Your task to perform on an android device: open app "Contacts" (install if not already installed) Image 0: 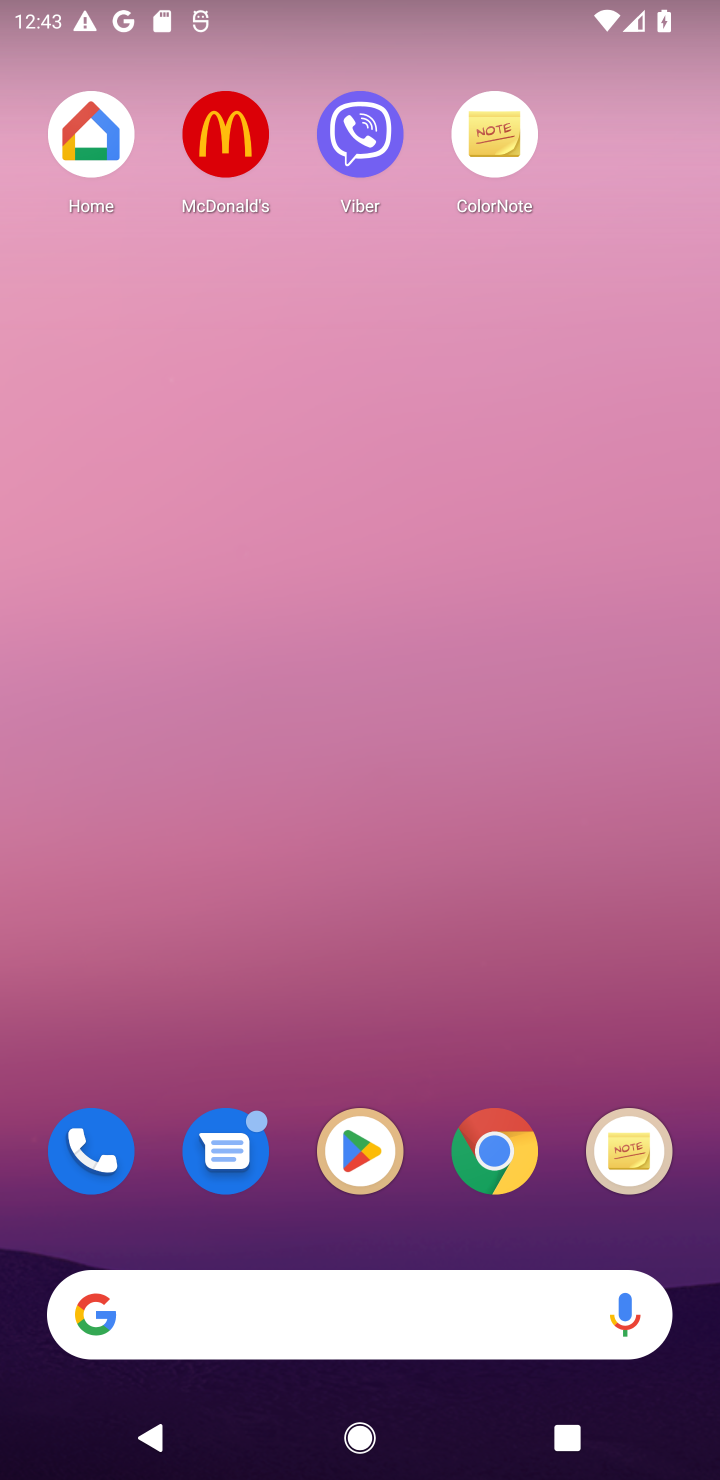
Step 0: click (341, 1146)
Your task to perform on an android device: open app "Contacts" (install if not already installed) Image 1: 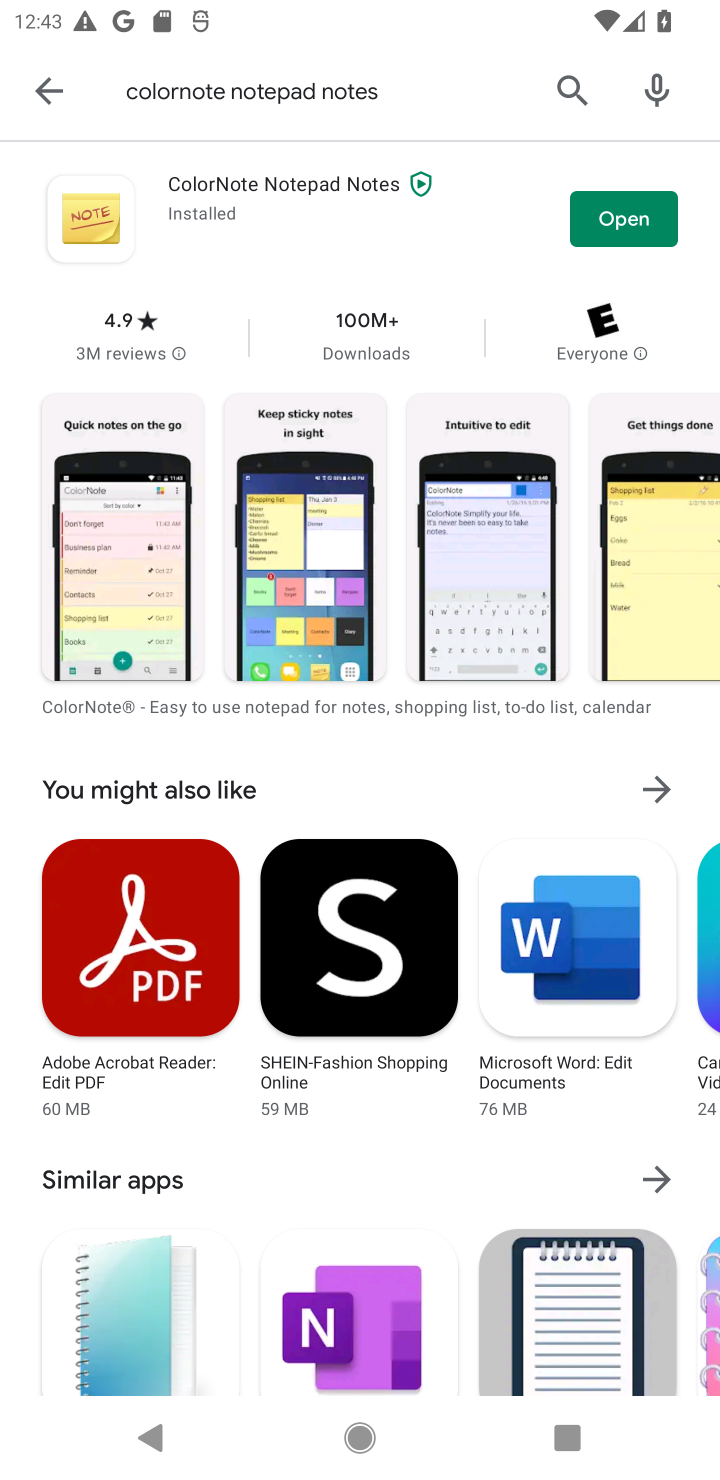
Step 1: click (573, 86)
Your task to perform on an android device: open app "Contacts" (install if not already installed) Image 2: 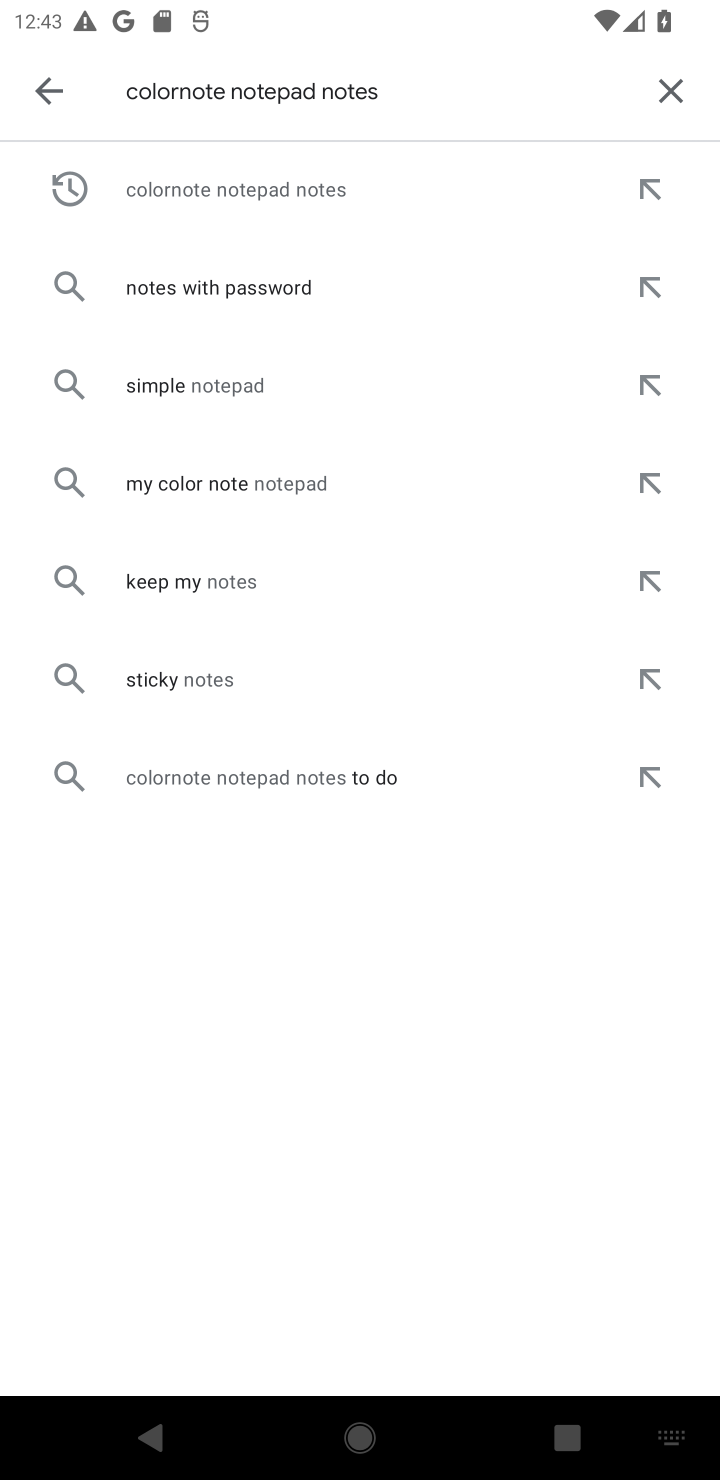
Step 2: click (666, 98)
Your task to perform on an android device: open app "Contacts" (install if not already installed) Image 3: 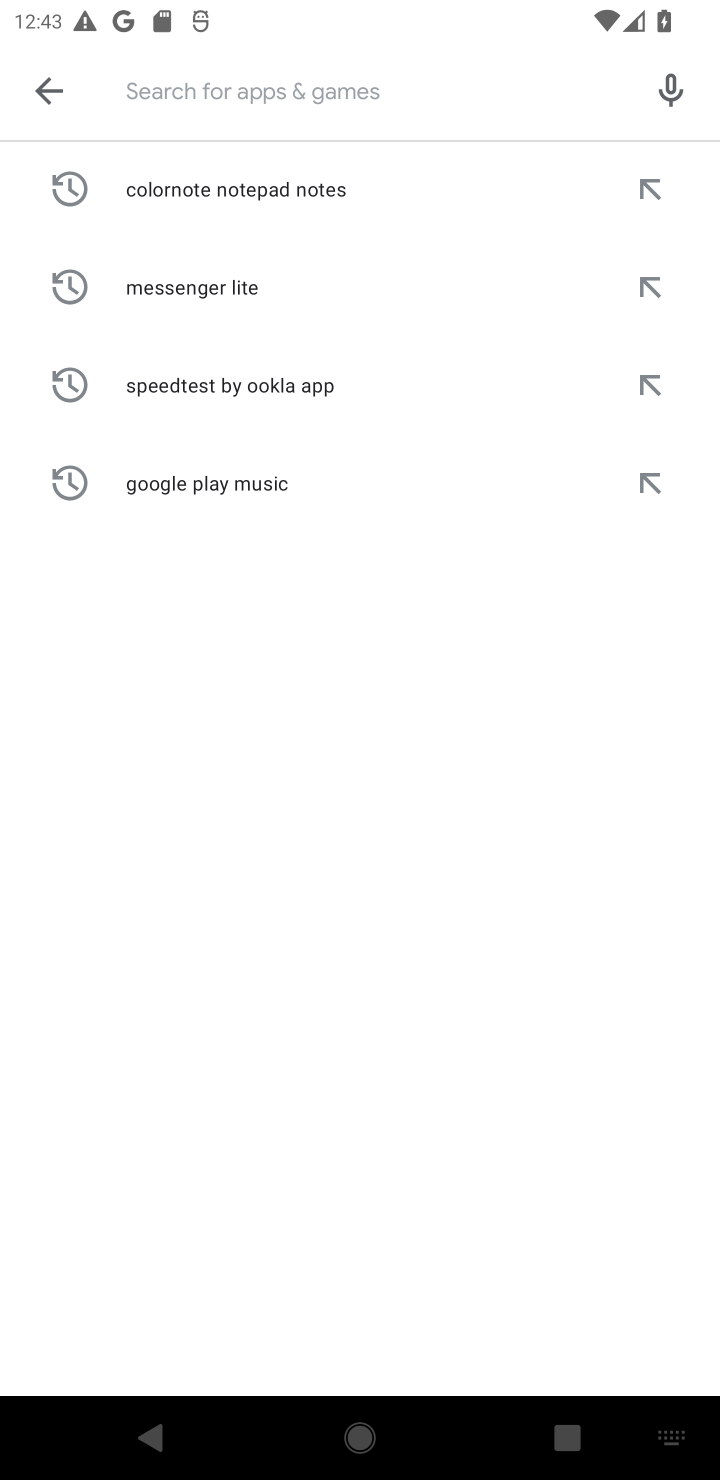
Step 3: type "Contacts"
Your task to perform on an android device: open app "Contacts" (install if not already installed) Image 4: 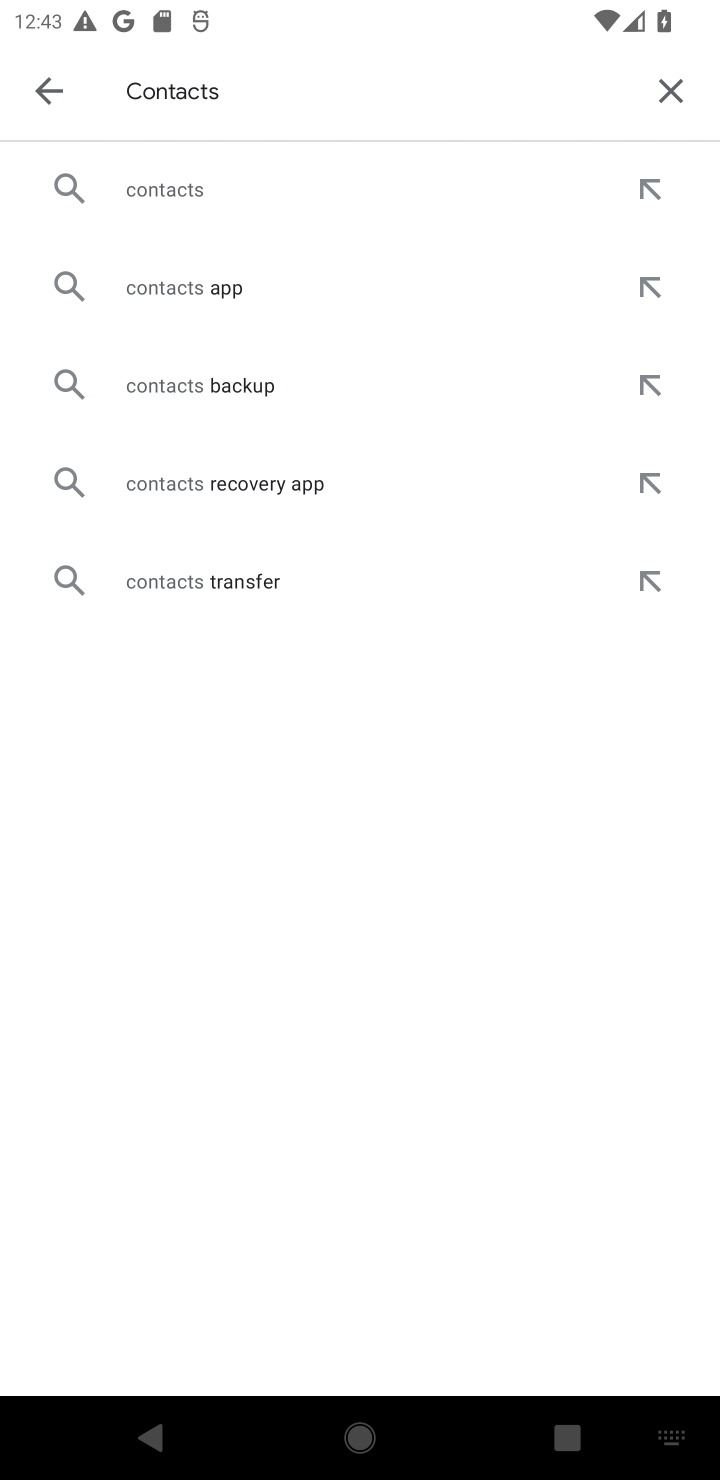
Step 4: click (264, 172)
Your task to perform on an android device: open app "Contacts" (install if not already installed) Image 5: 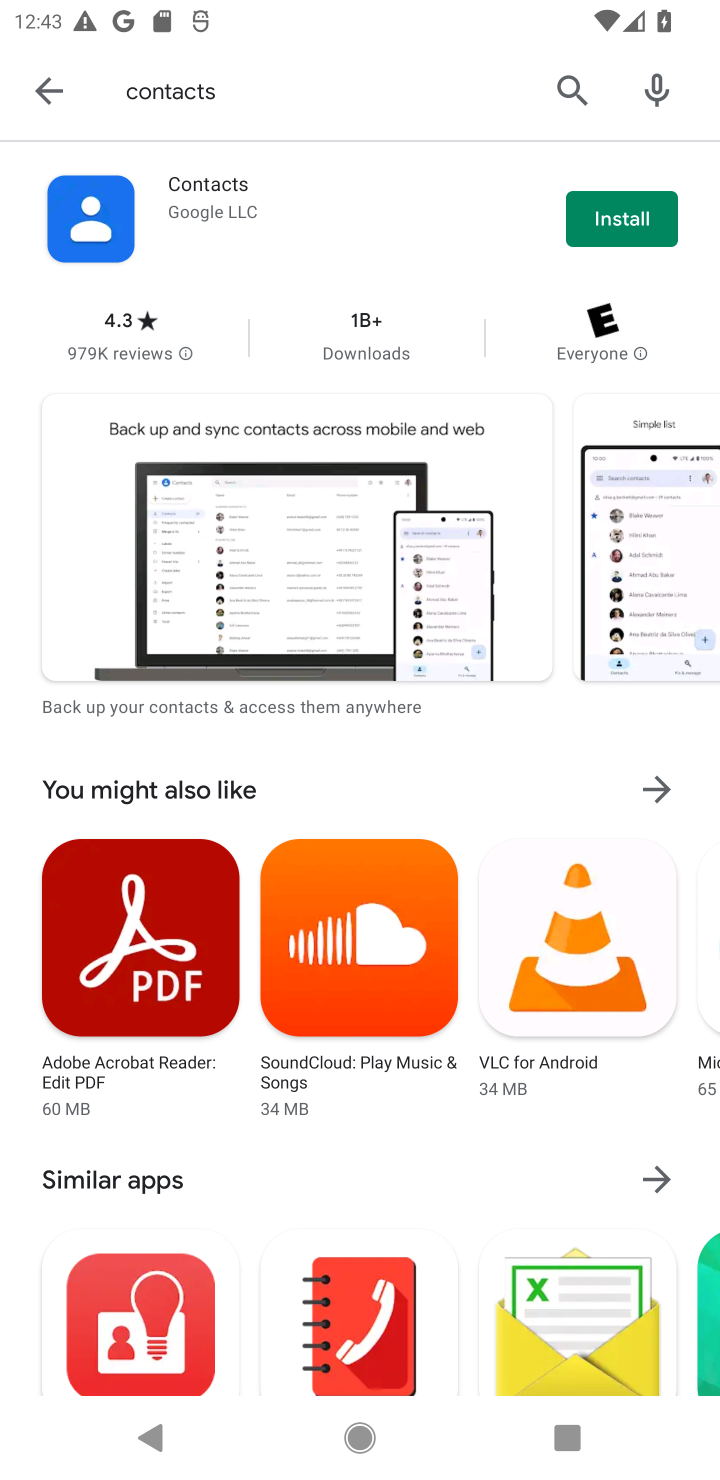
Step 5: click (620, 231)
Your task to perform on an android device: open app "Contacts" (install if not already installed) Image 6: 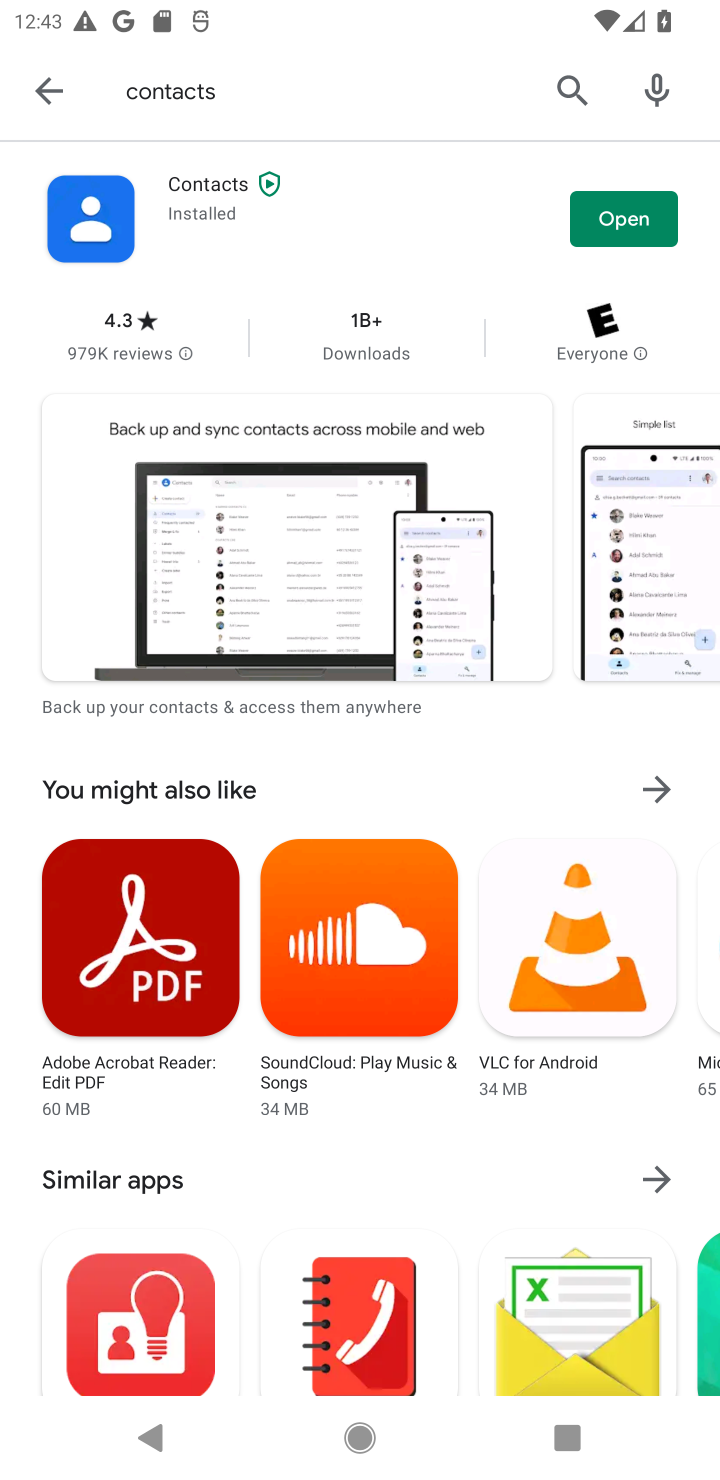
Step 6: click (609, 227)
Your task to perform on an android device: open app "Contacts" (install if not already installed) Image 7: 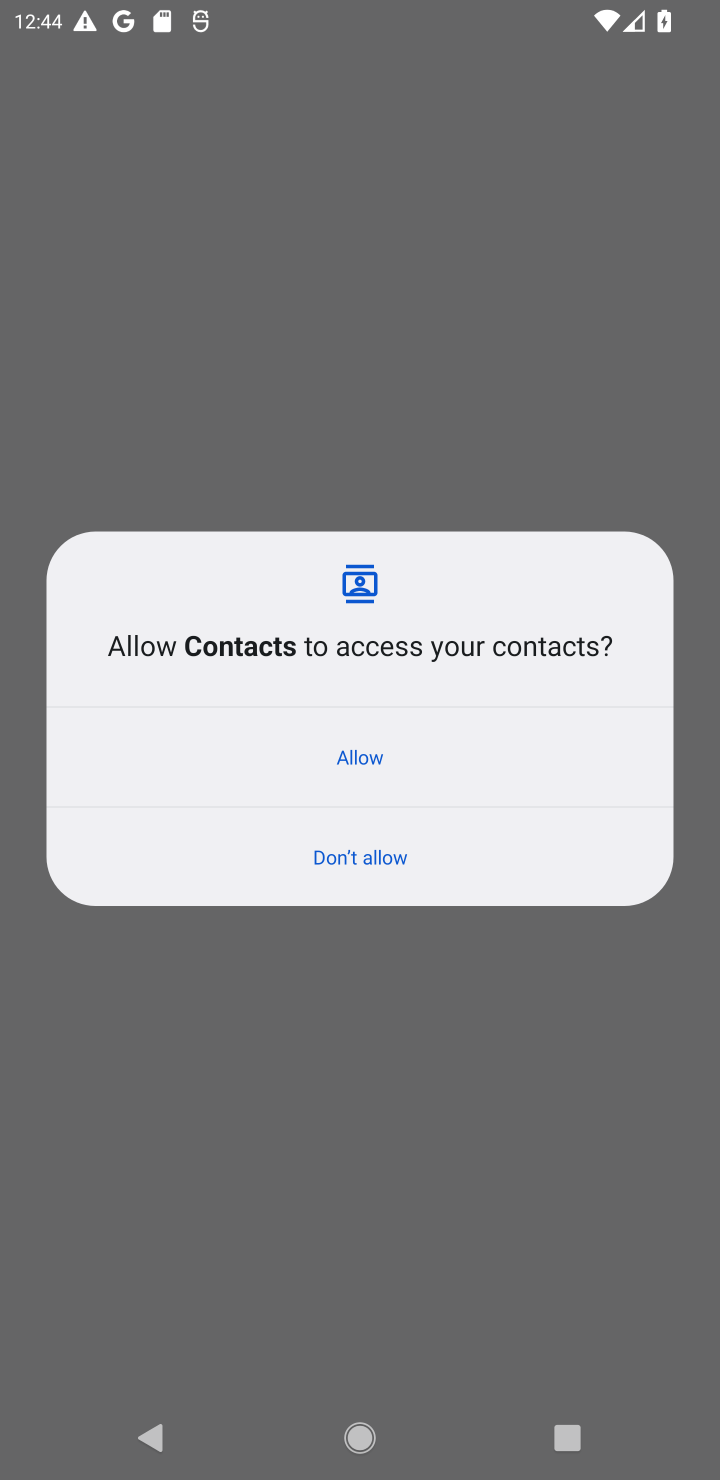
Step 7: press home button
Your task to perform on an android device: open app "Contacts" (install if not already installed) Image 8: 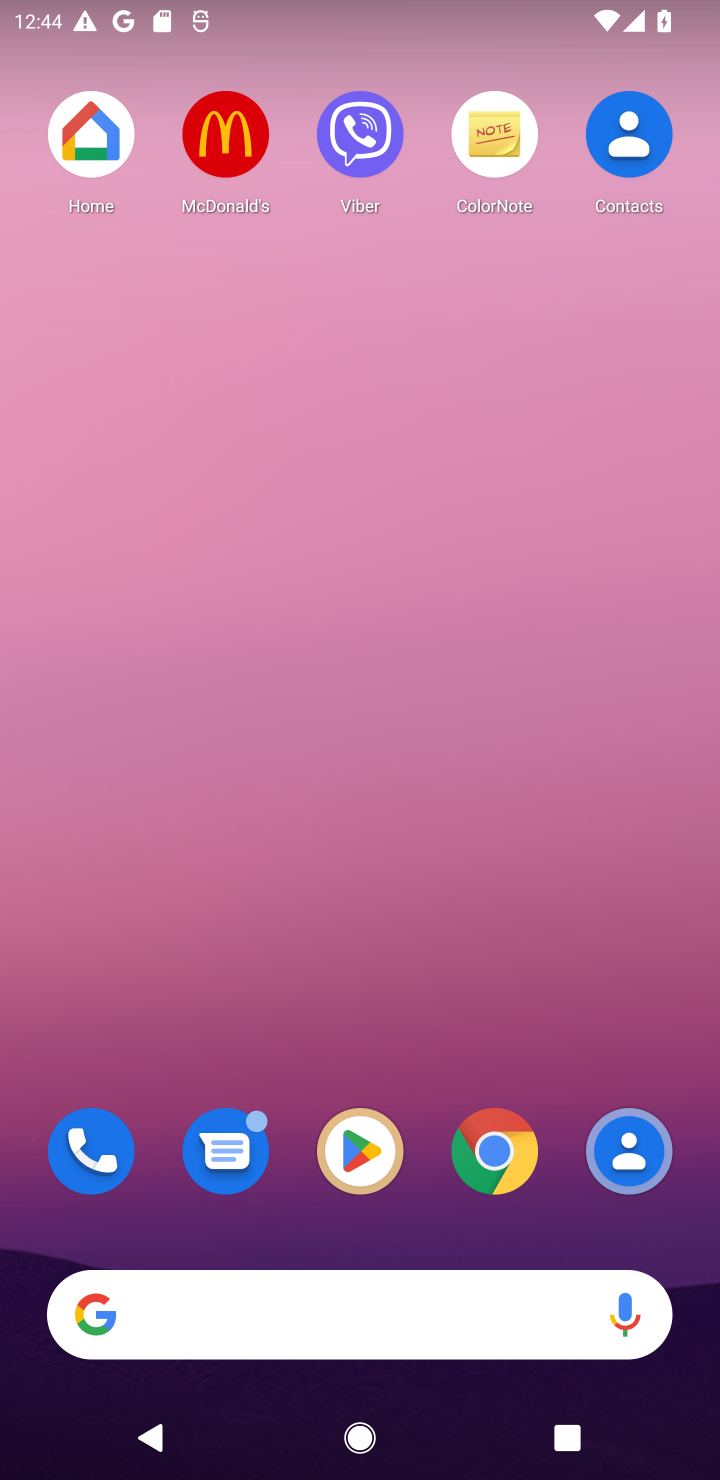
Step 8: click (364, 1116)
Your task to perform on an android device: open app "Contacts" (install if not already installed) Image 9: 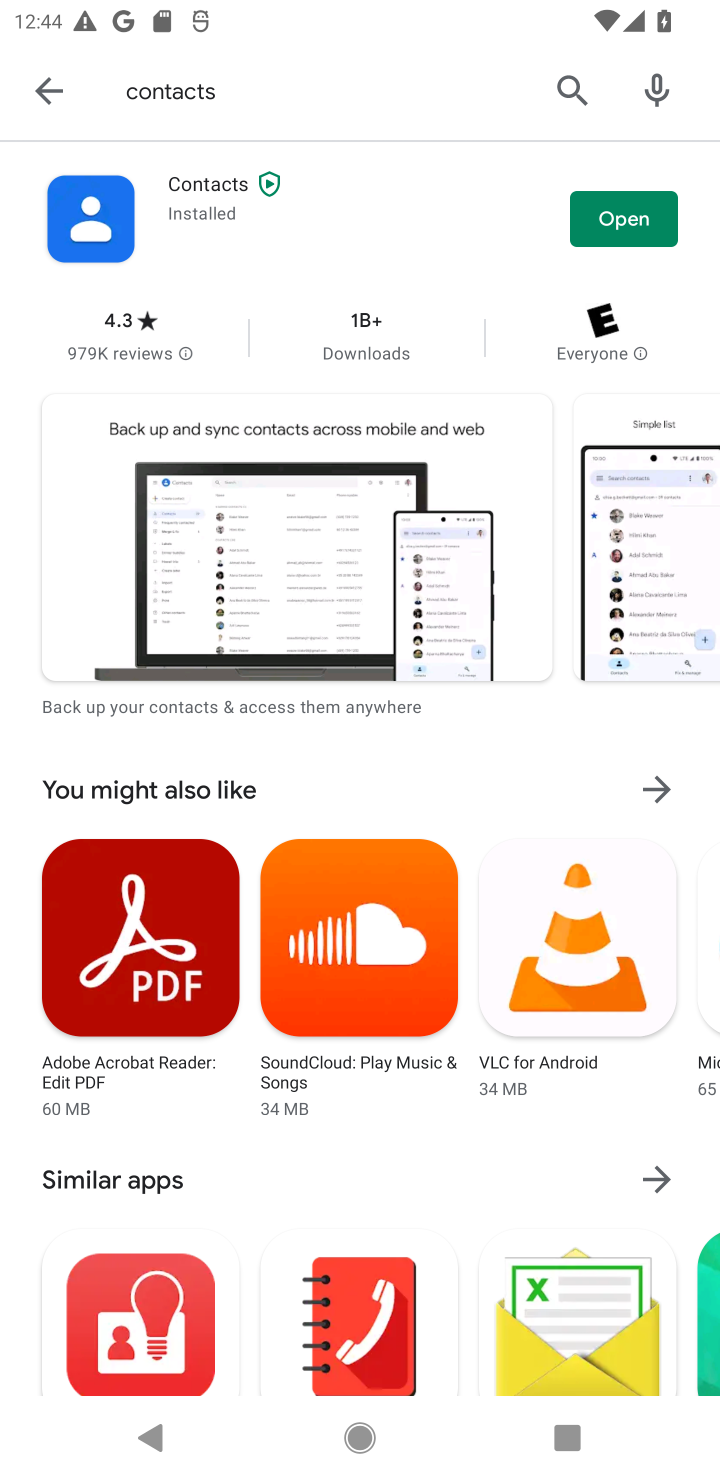
Step 9: click (588, 90)
Your task to perform on an android device: open app "Contacts" (install if not already installed) Image 10: 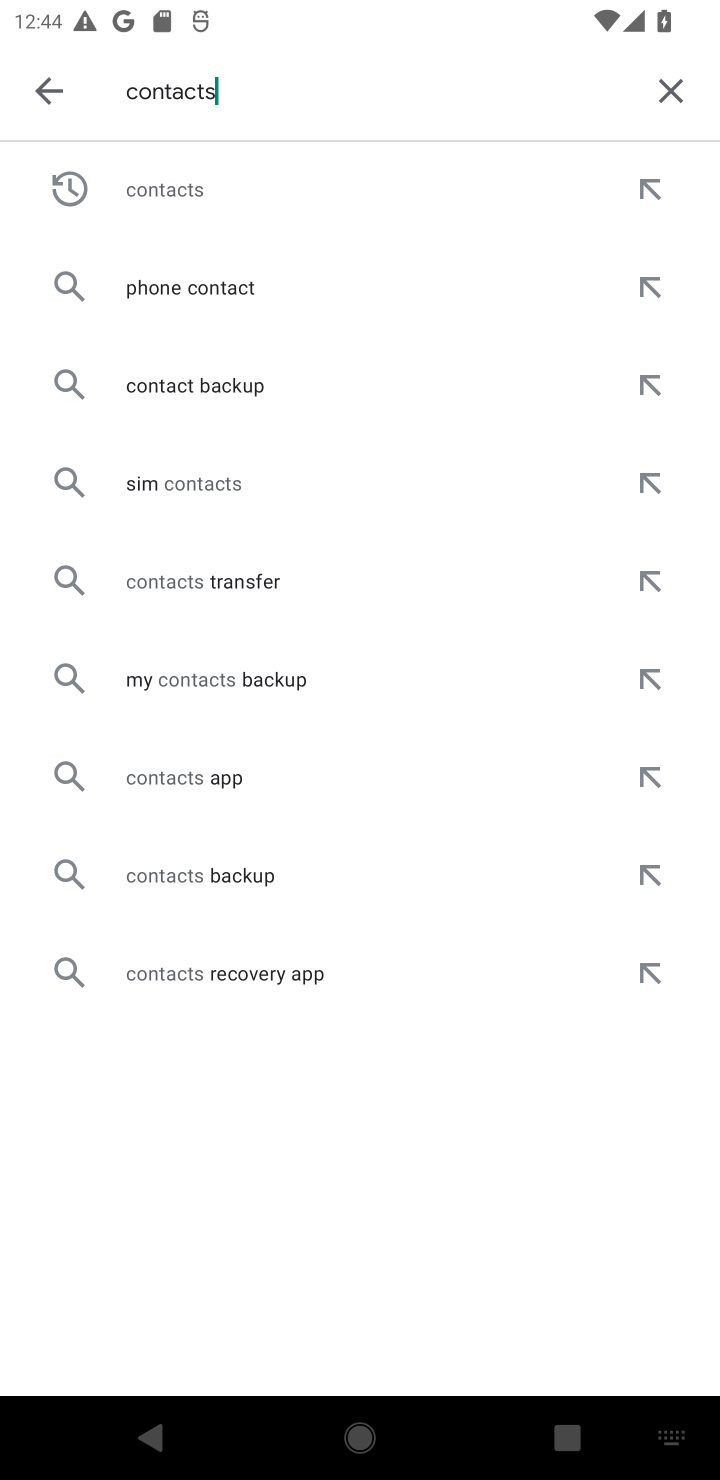
Step 10: click (673, 85)
Your task to perform on an android device: open app "Contacts" (install if not already installed) Image 11: 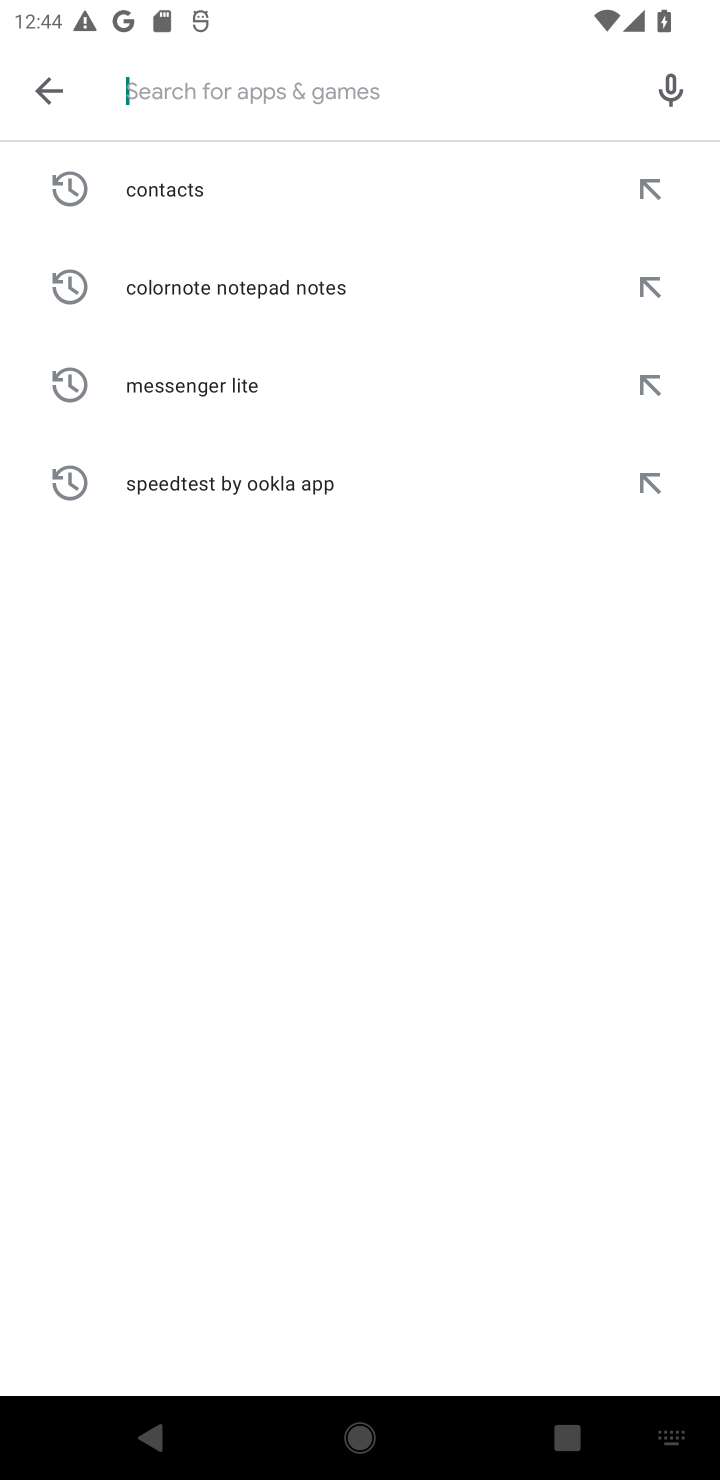
Step 11: type "Contacts"
Your task to perform on an android device: open app "Contacts" (install if not already installed) Image 12: 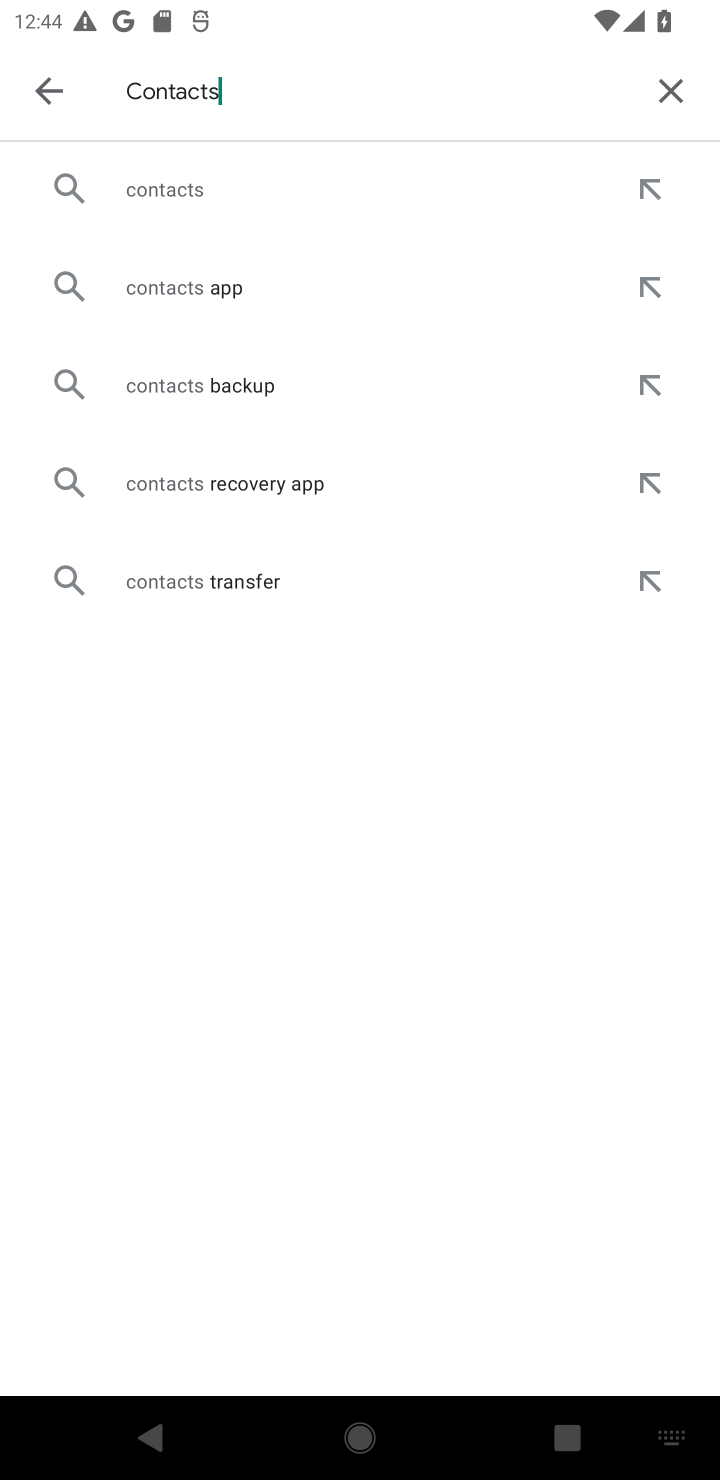
Step 12: click (213, 194)
Your task to perform on an android device: open app "Contacts" (install if not already installed) Image 13: 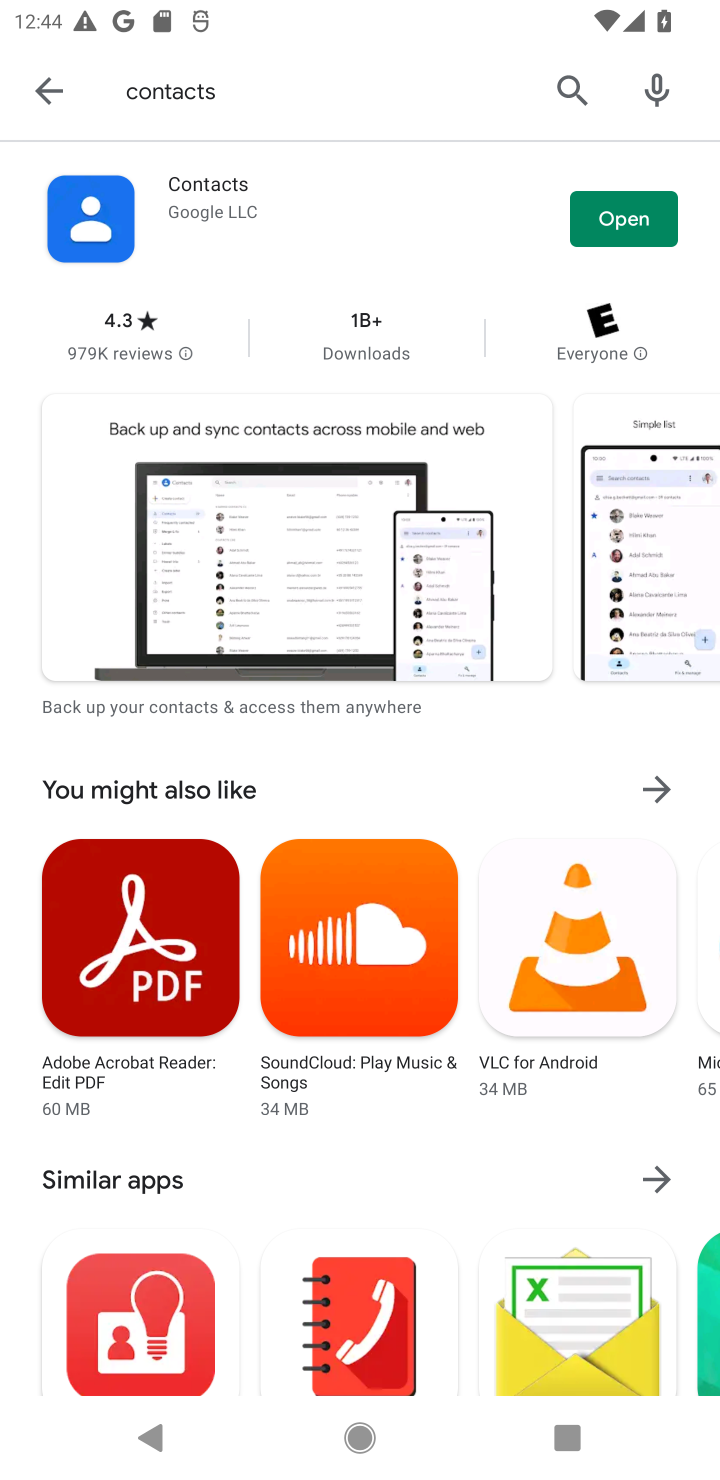
Step 13: click (617, 214)
Your task to perform on an android device: open app "Contacts" (install if not already installed) Image 14: 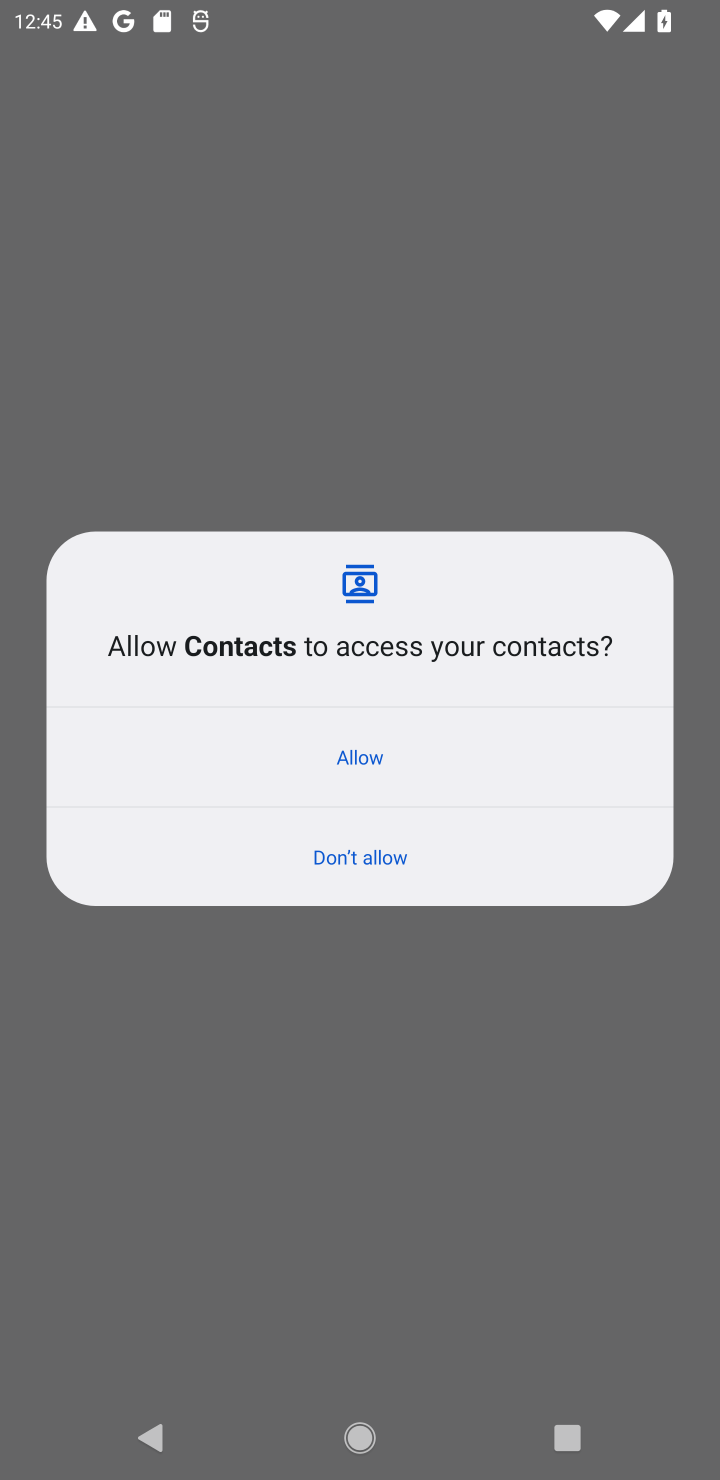
Step 14: click (438, 766)
Your task to perform on an android device: open app "Contacts" (install if not already installed) Image 15: 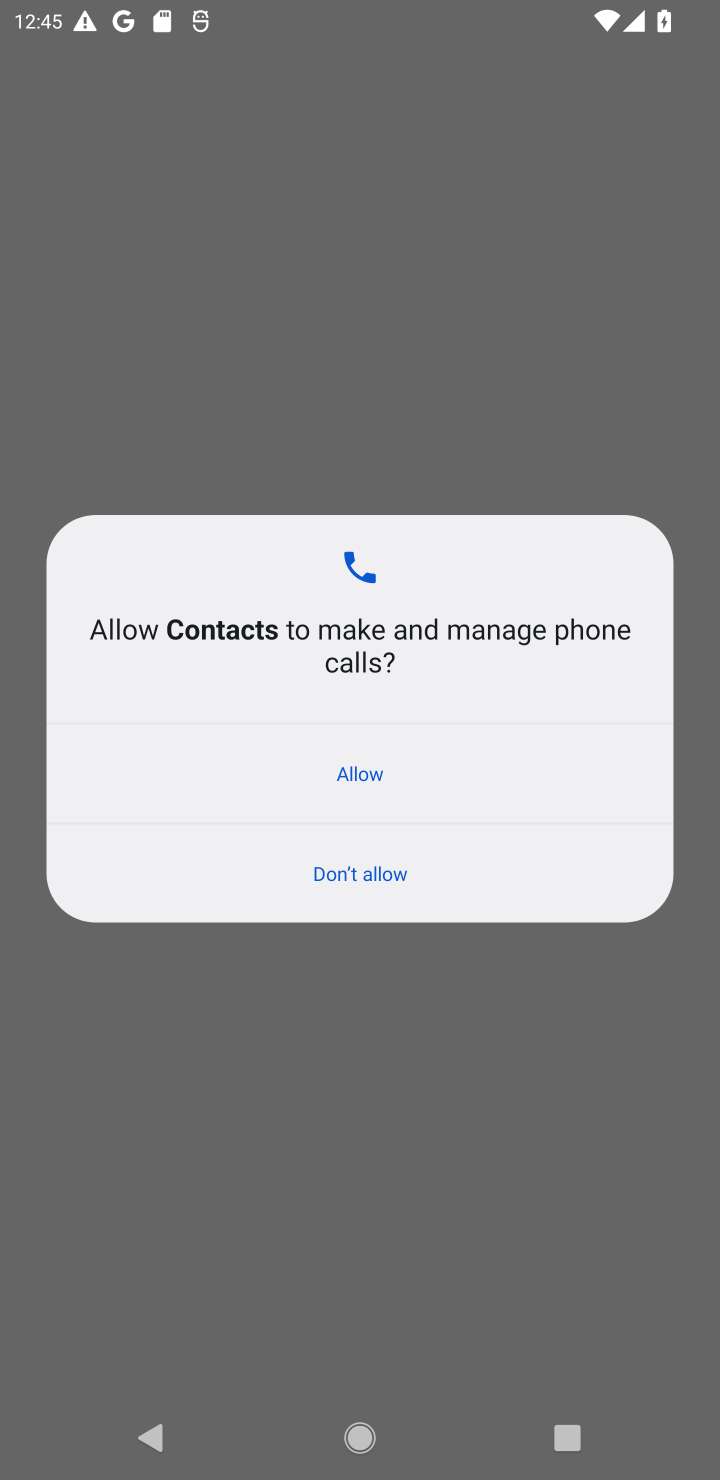
Step 15: click (426, 766)
Your task to perform on an android device: open app "Contacts" (install if not already installed) Image 16: 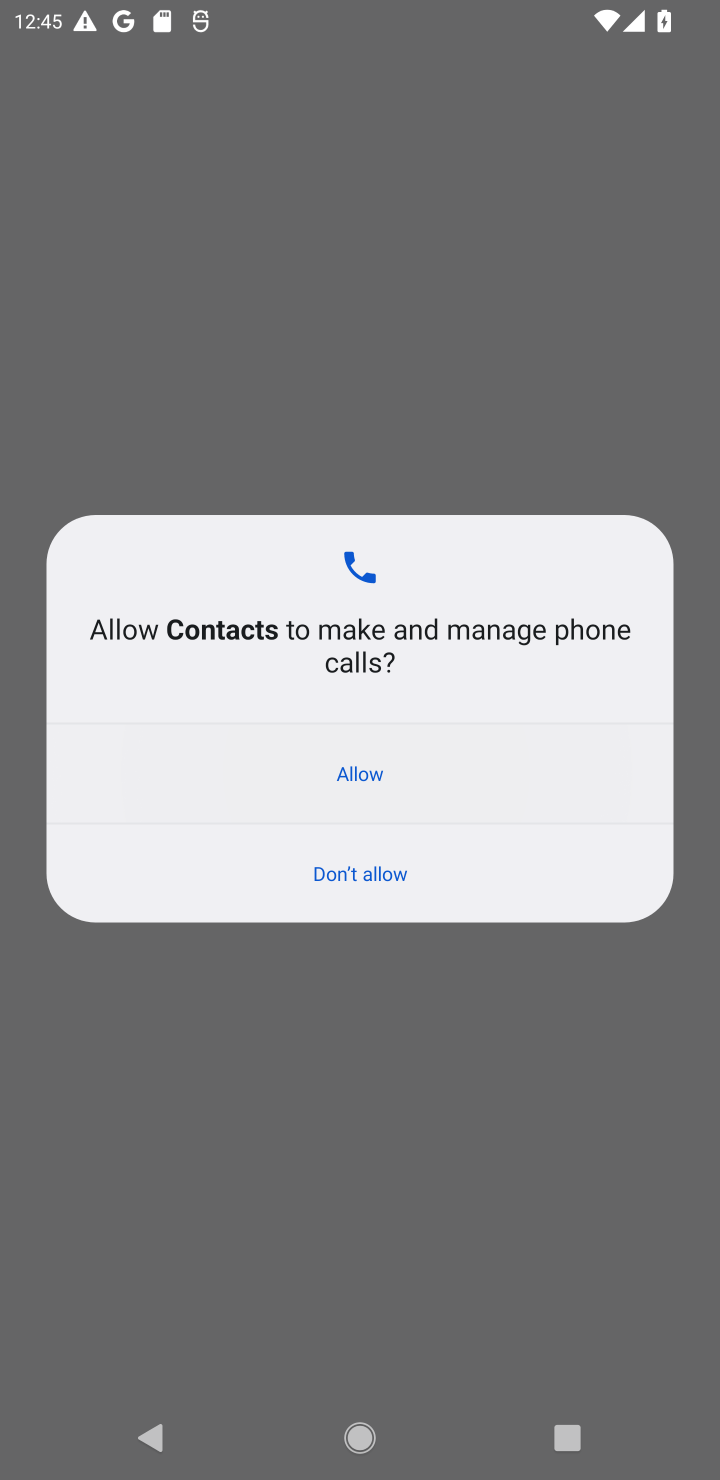
Step 16: task complete